Your task to perform on an android device: Open my contact list Image 0: 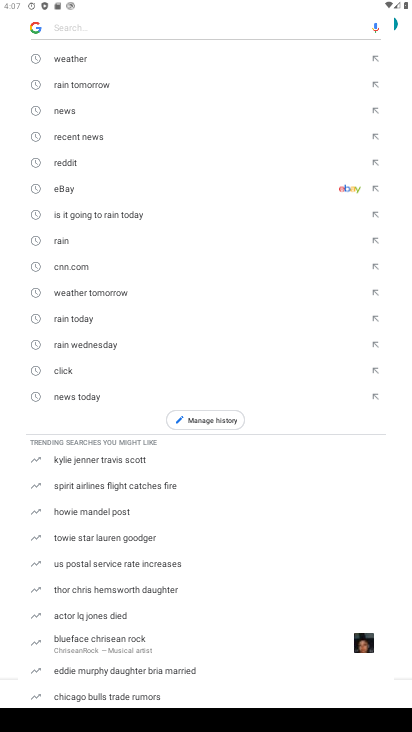
Step 0: press home button
Your task to perform on an android device: Open my contact list Image 1: 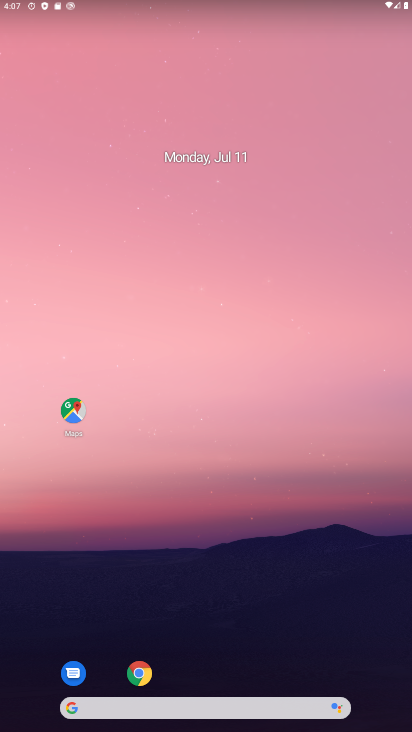
Step 1: drag from (213, 659) to (220, 6)
Your task to perform on an android device: Open my contact list Image 2: 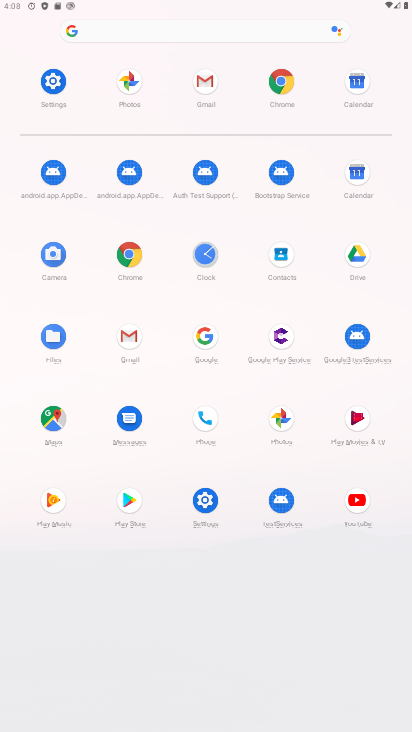
Step 2: click (276, 258)
Your task to perform on an android device: Open my contact list Image 3: 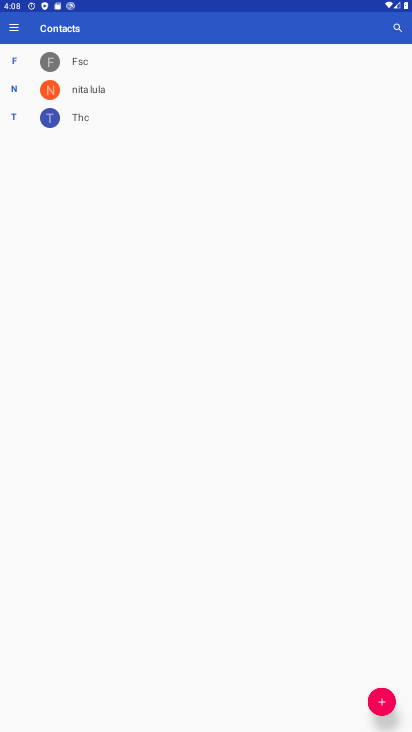
Step 3: task complete